Your task to perform on an android device: Open Android settings Image 0: 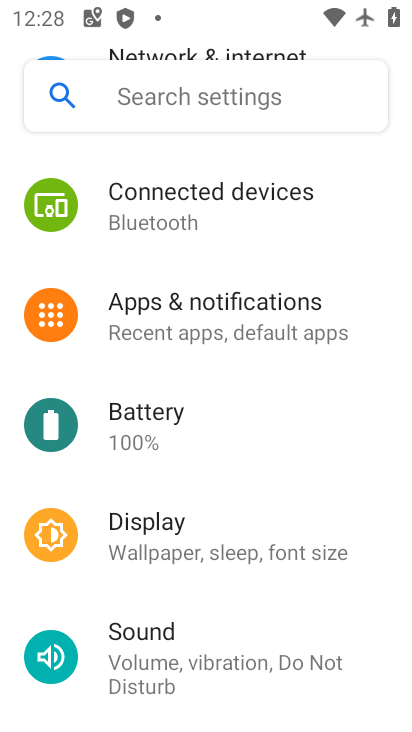
Step 0: drag from (297, 630) to (311, 369)
Your task to perform on an android device: Open Android settings Image 1: 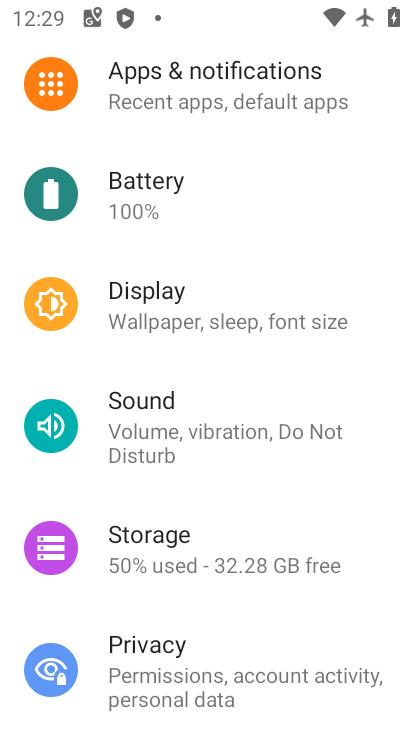
Step 1: task complete